Your task to perform on an android device: stop showing notifications on the lock screen Image 0: 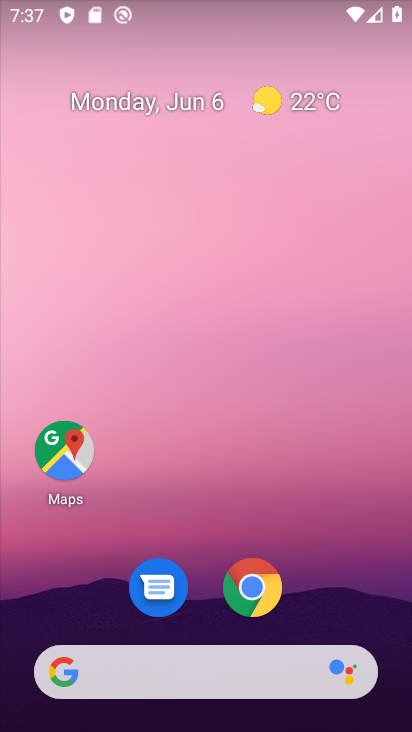
Step 0: drag from (193, 619) to (193, 298)
Your task to perform on an android device: stop showing notifications on the lock screen Image 1: 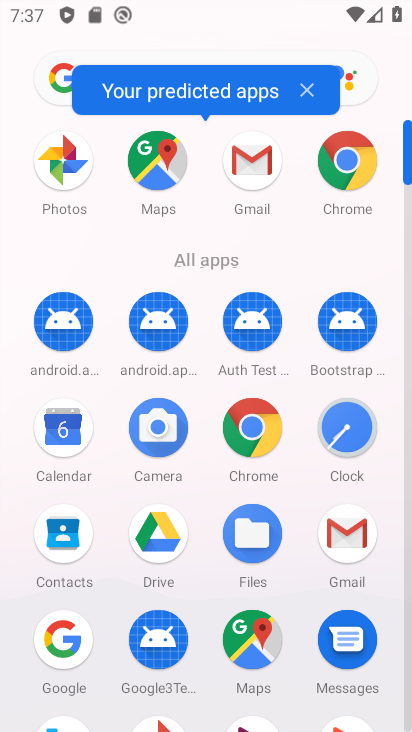
Step 1: drag from (188, 606) to (163, 183)
Your task to perform on an android device: stop showing notifications on the lock screen Image 2: 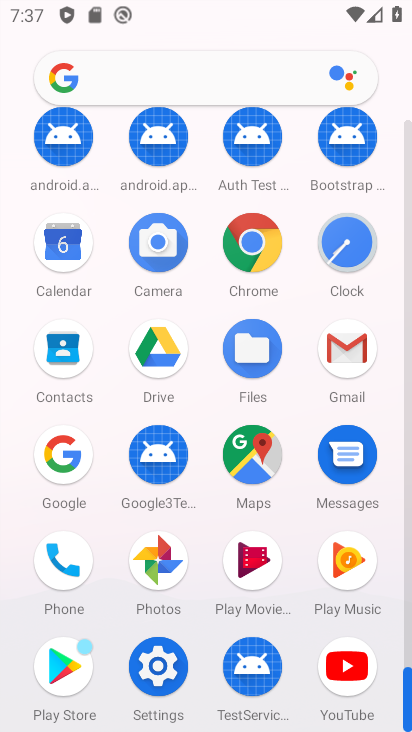
Step 2: click (165, 660)
Your task to perform on an android device: stop showing notifications on the lock screen Image 3: 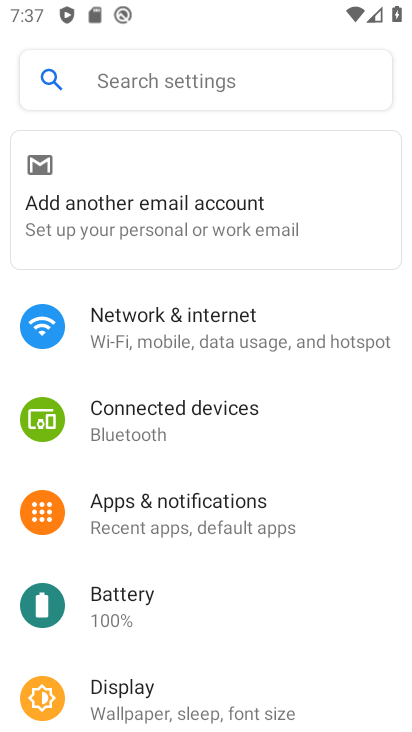
Step 3: click (190, 506)
Your task to perform on an android device: stop showing notifications on the lock screen Image 4: 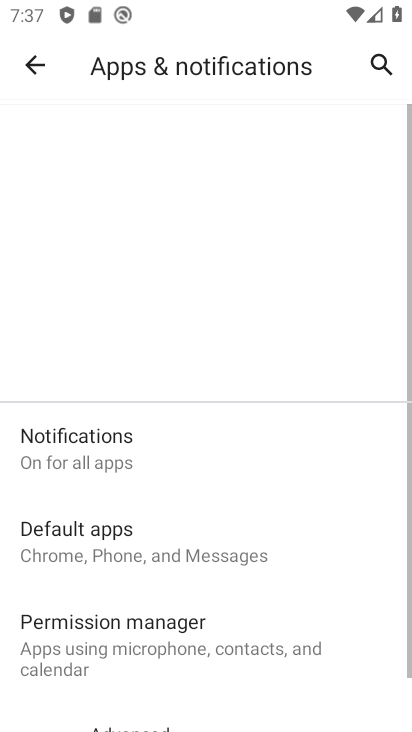
Step 4: click (103, 462)
Your task to perform on an android device: stop showing notifications on the lock screen Image 5: 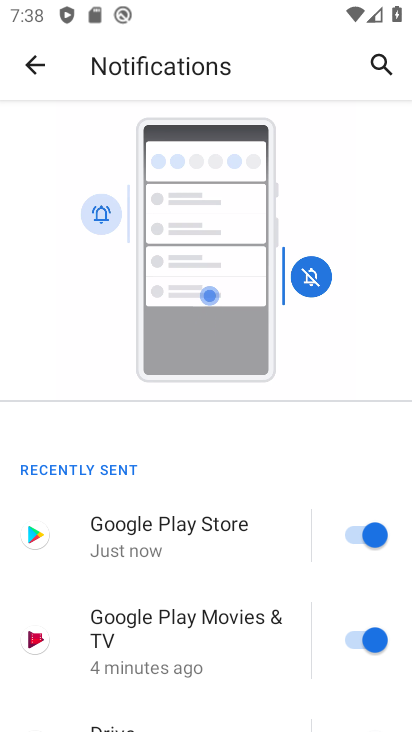
Step 5: drag from (184, 688) to (184, 251)
Your task to perform on an android device: stop showing notifications on the lock screen Image 6: 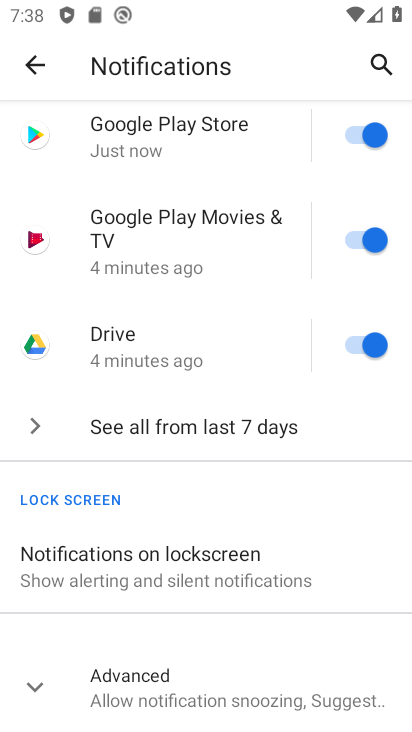
Step 6: click (165, 567)
Your task to perform on an android device: stop showing notifications on the lock screen Image 7: 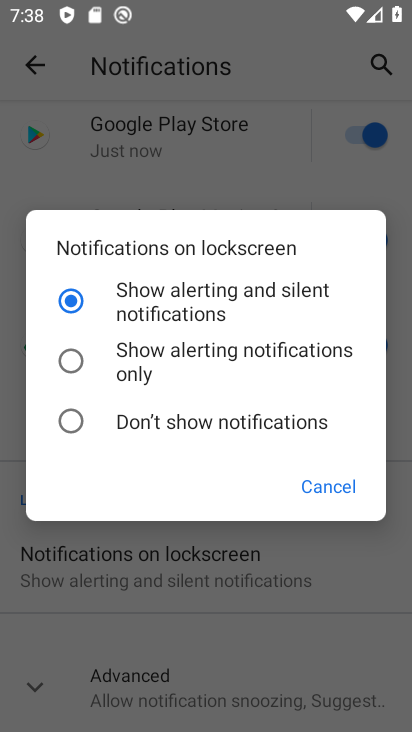
Step 7: click (140, 427)
Your task to perform on an android device: stop showing notifications on the lock screen Image 8: 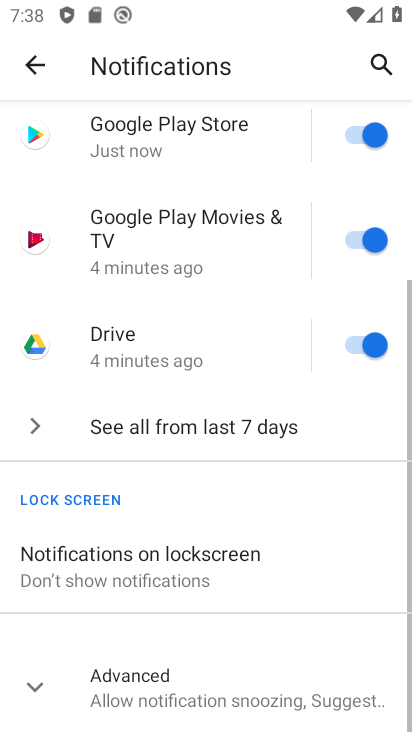
Step 8: task complete